Your task to perform on an android device: Open privacy settings Image 0: 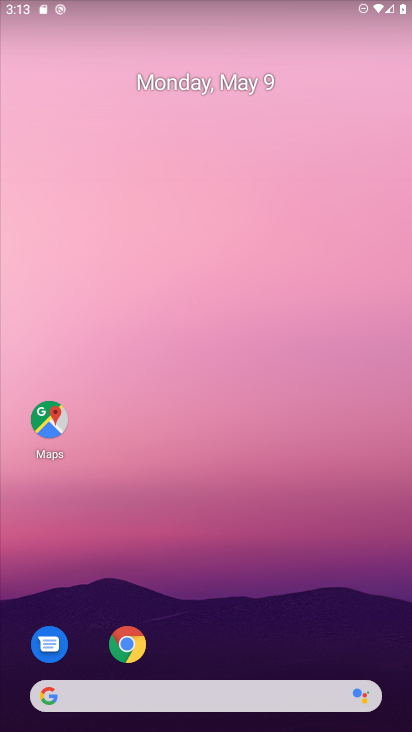
Step 0: drag from (204, 620) to (250, 258)
Your task to perform on an android device: Open privacy settings Image 1: 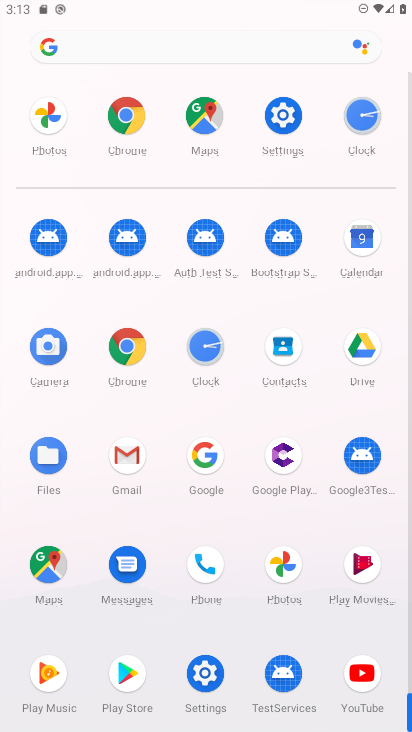
Step 1: click (278, 147)
Your task to perform on an android device: Open privacy settings Image 2: 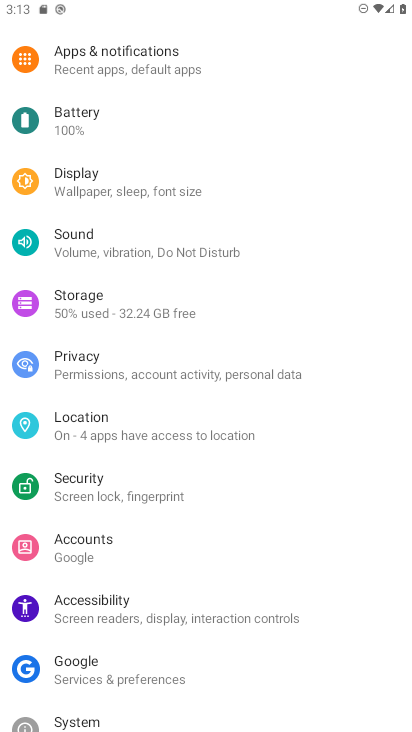
Step 2: click (53, 359)
Your task to perform on an android device: Open privacy settings Image 3: 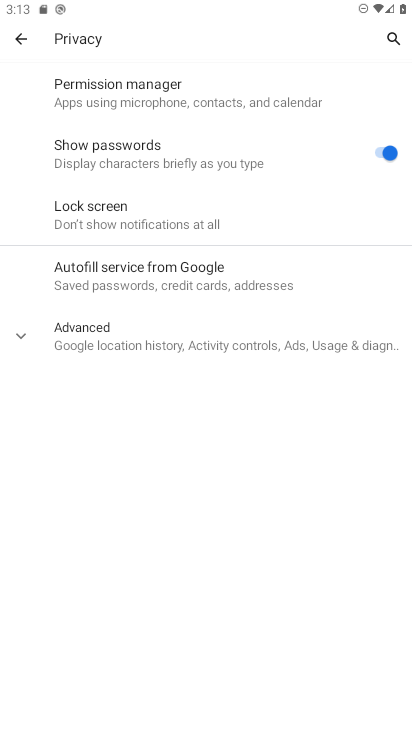
Step 3: task complete